Your task to perform on an android device: check google app version Image 0: 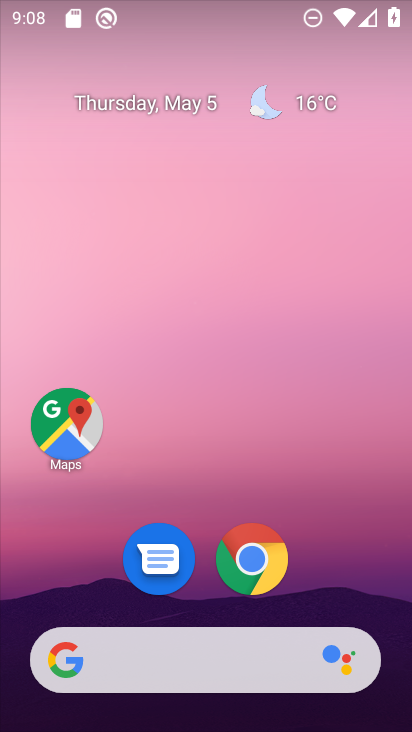
Step 0: drag from (362, 596) to (363, 20)
Your task to perform on an android device: check google app version Image 1: 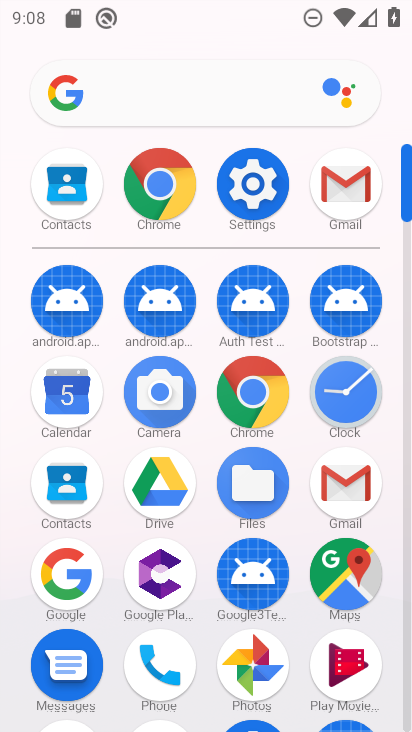
Step 1: drag from (63, 584) to (80, 533)
Your task to perform on an android device: check google app version Image 2: 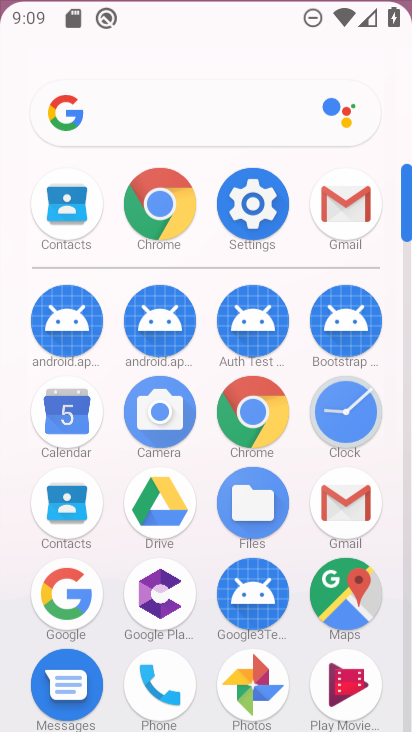
Step 2: click (239, 323)
Your task to perform on an android device: check google app version Image 3: 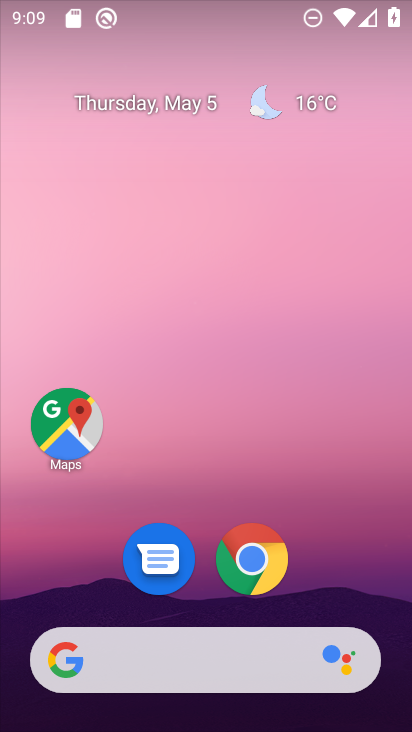
Step 3: drag from (346, 608) to (340, 5)
Your task to perform on an android device: check google app version Image 4: 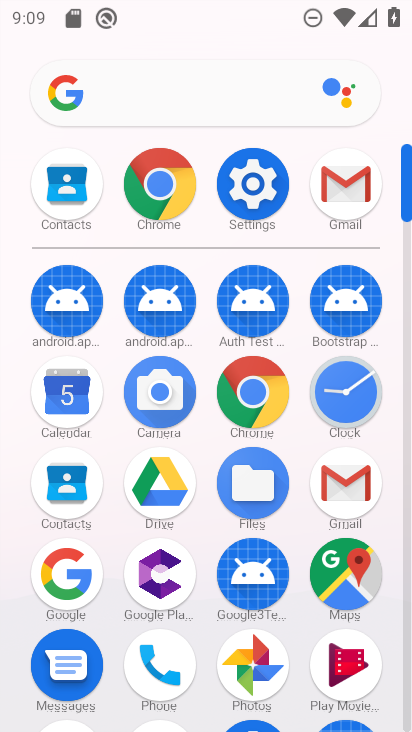
Step 4: click (62, 584)
Your task to perform on an android device: check google app version Image 5: 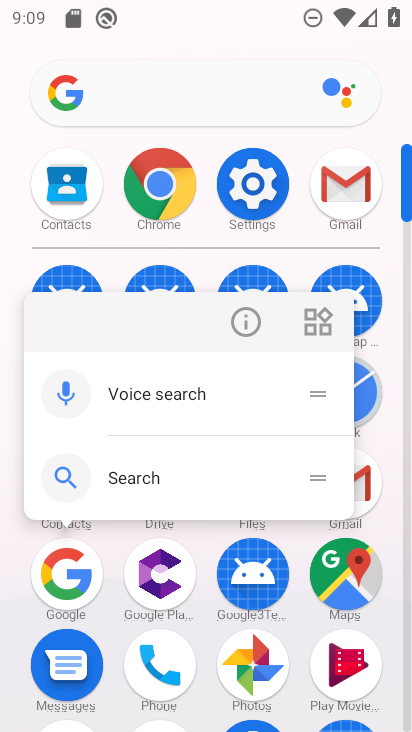
Step 5: click (236, 323)
Your task to perform on an android device: check google app version Image 6: 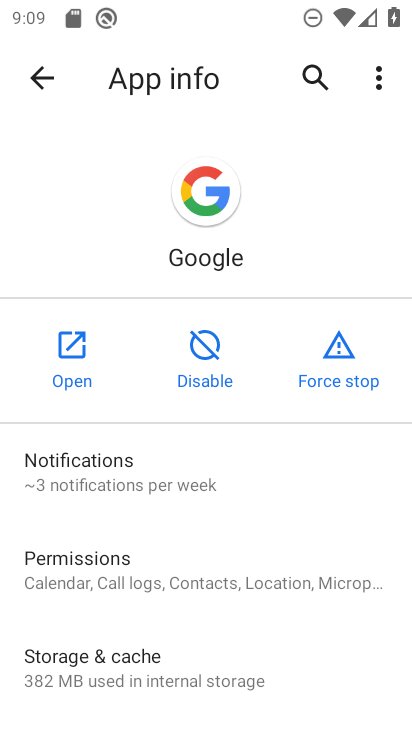
Step 6: drag from (278, 619) to (266, 148)
Your task to perform on an android device: check google app version Image 7: 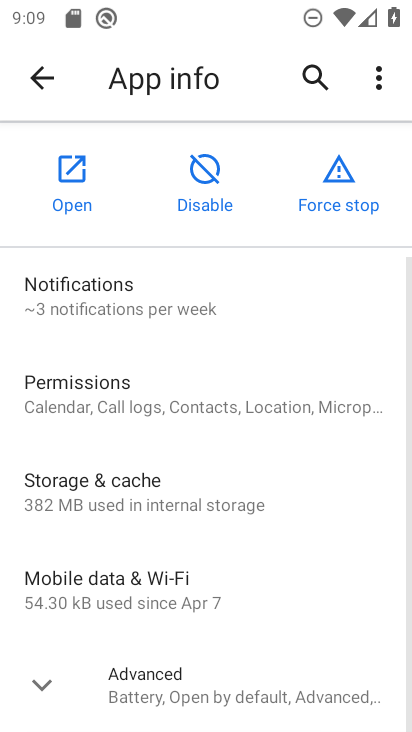
Step 7: drag from (272, 577) to (260, 242)
Your task to perform on an android device: check google app version Image 8: 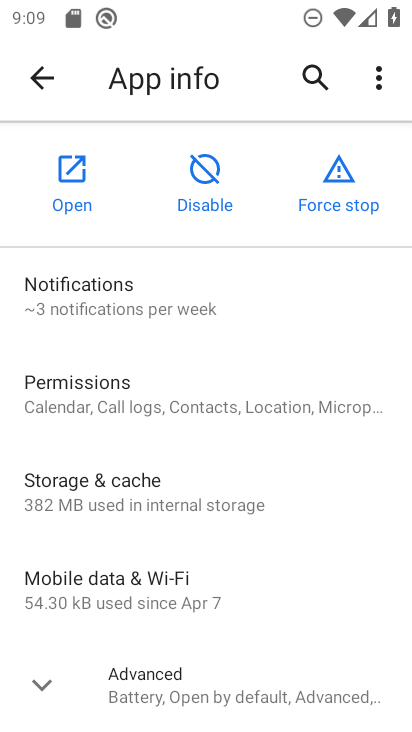
Step 8: click (43, 689)
Your task to perform on an android device: check google app version Image 9: 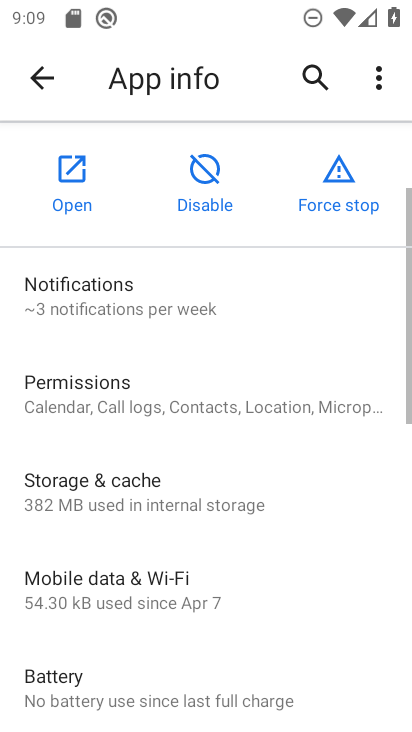
Step 9: task complete